Your task to perform on an android device: snooze an email in the gmail app Image 0: 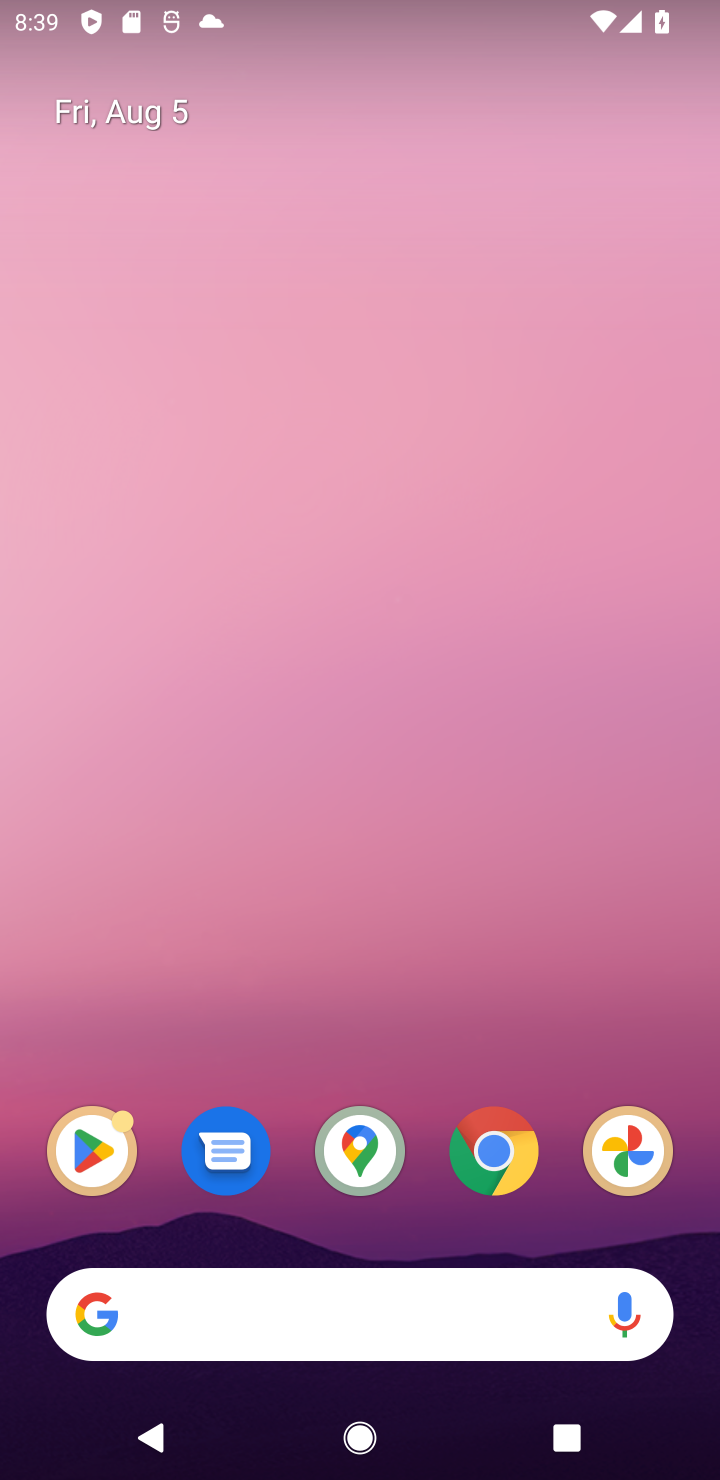
Step 0: drag from (252, 1156) to (319, 11)
Your task to perform on an android device: snooze an email in the gmail app Image 1: 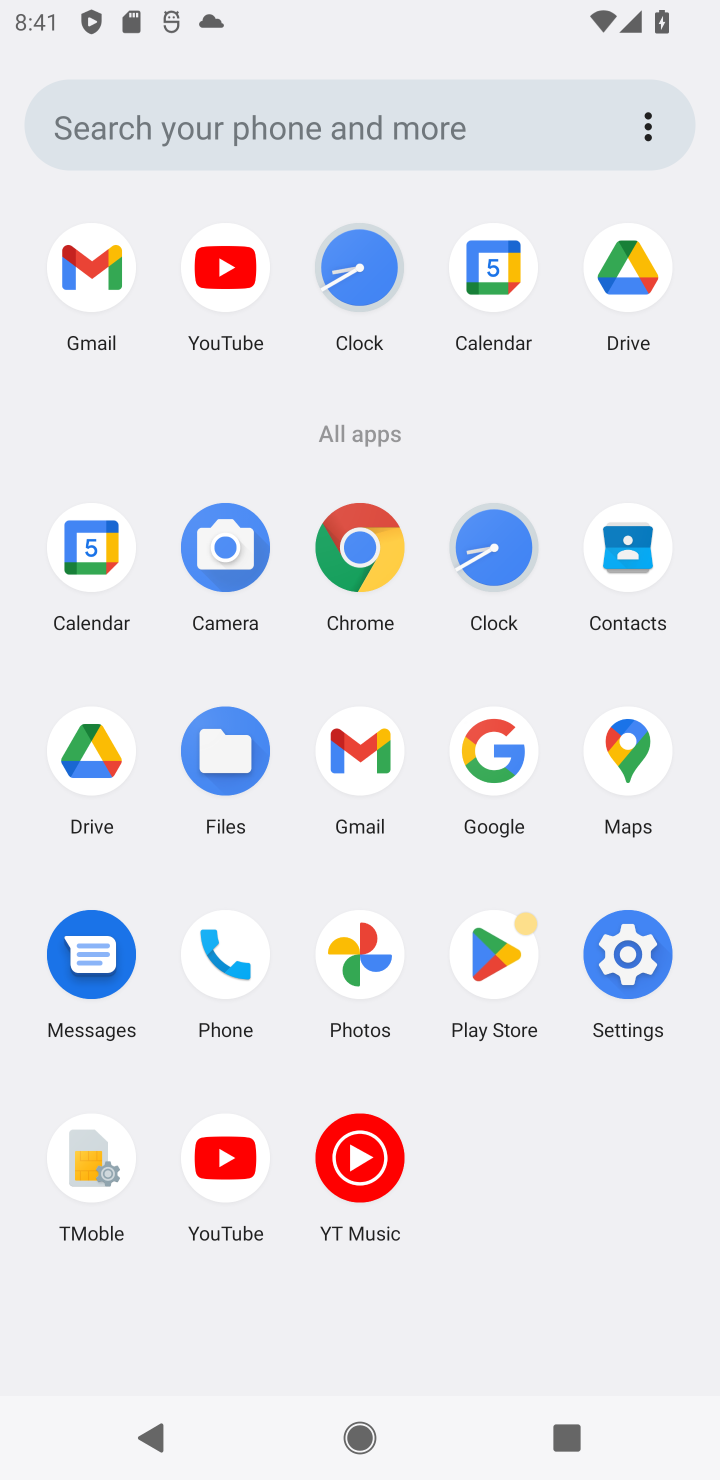
Step 1: click (345, 732)
Your task to perform on an android device: snooze an email in the gmail app Image 2: 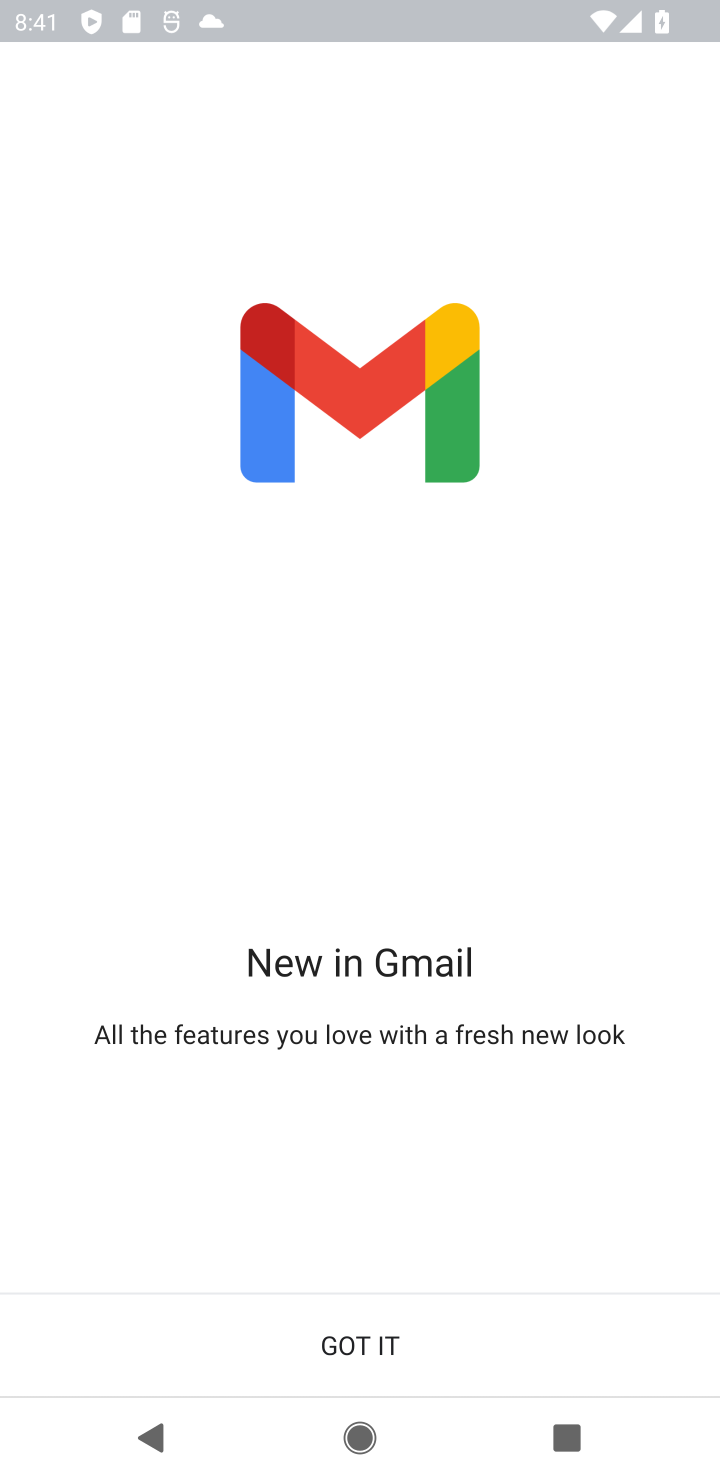
Step 2: click (411, 1327)
Your task to perform on an android device: snooze an email in the gmail app Image 3: 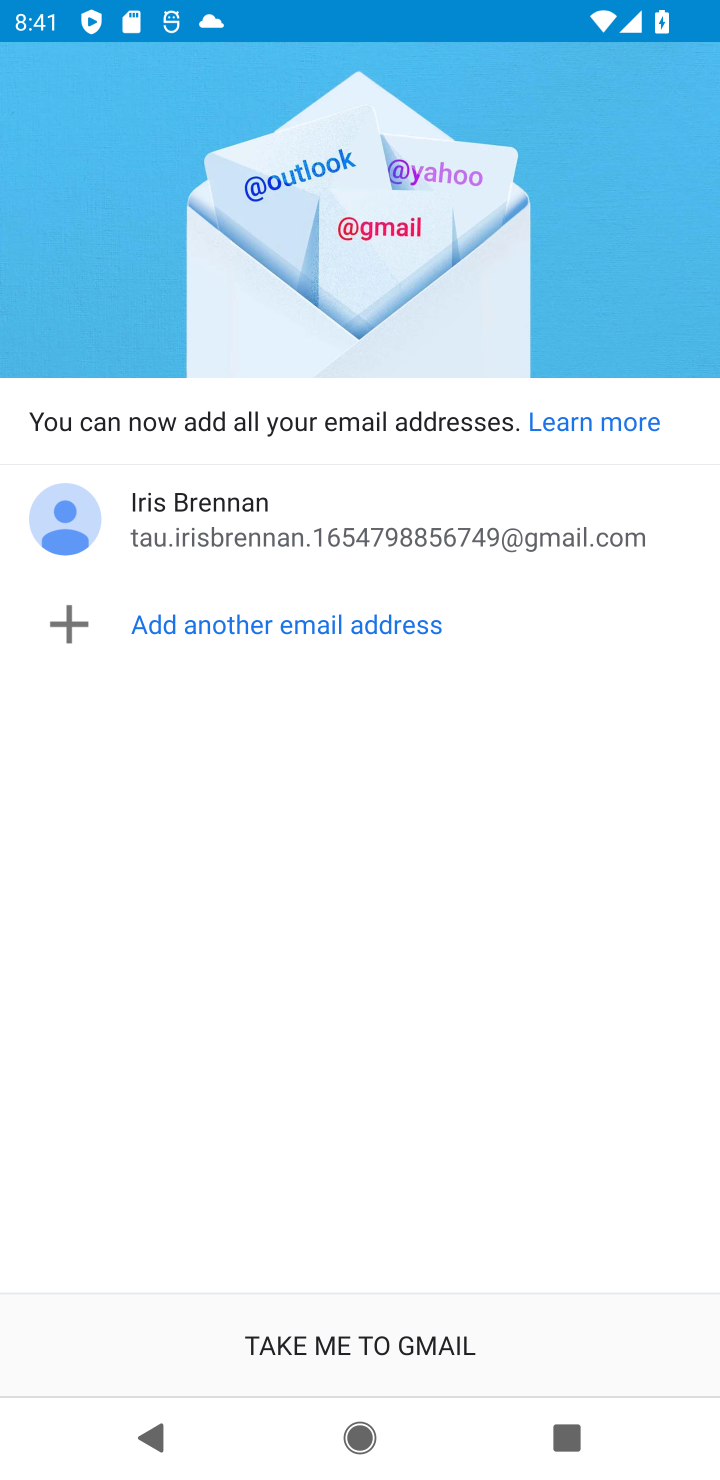
Step 3: click (380, 1334)
Your task to perform on an android device: snooze an email in the gmail app Image 4: 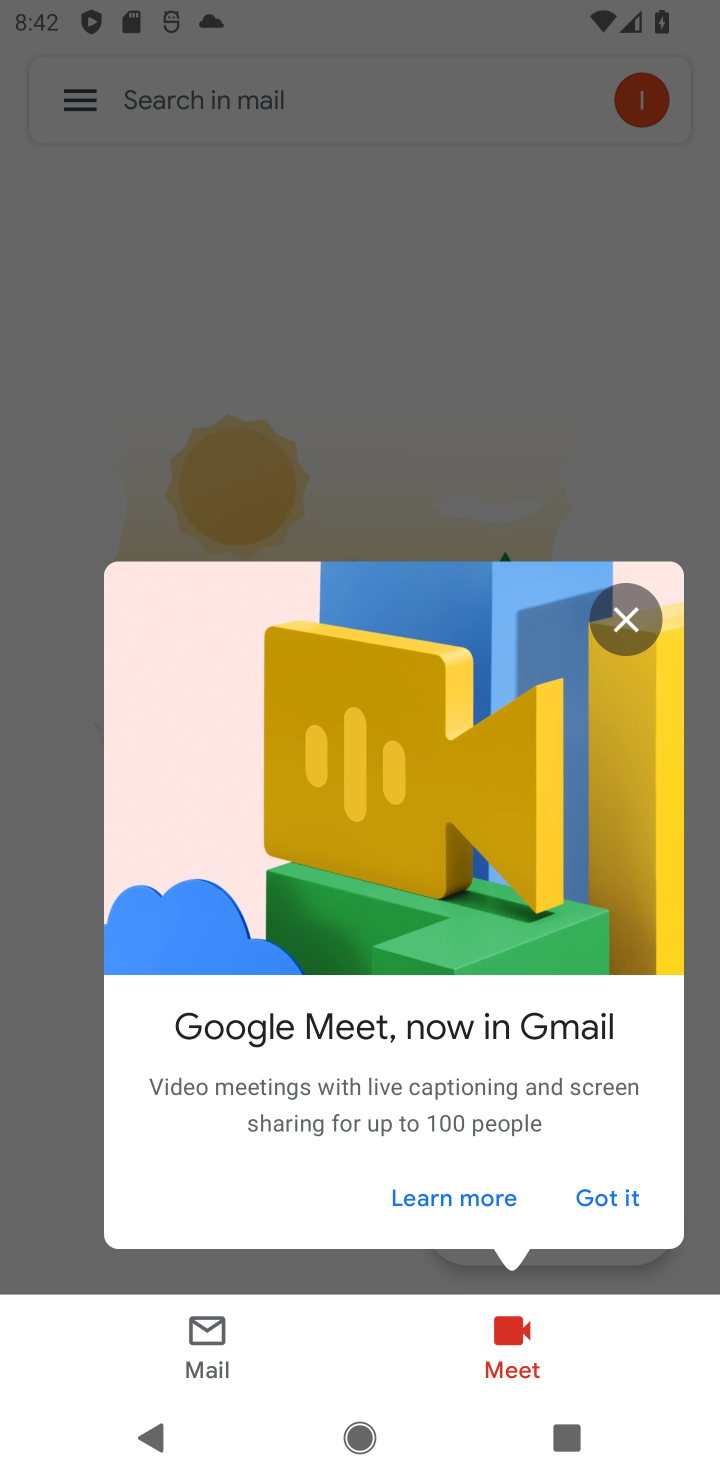
Step 4: click (591, 1209)
Your task to perform on an android device: snooze an email in the gmail app Image 5: 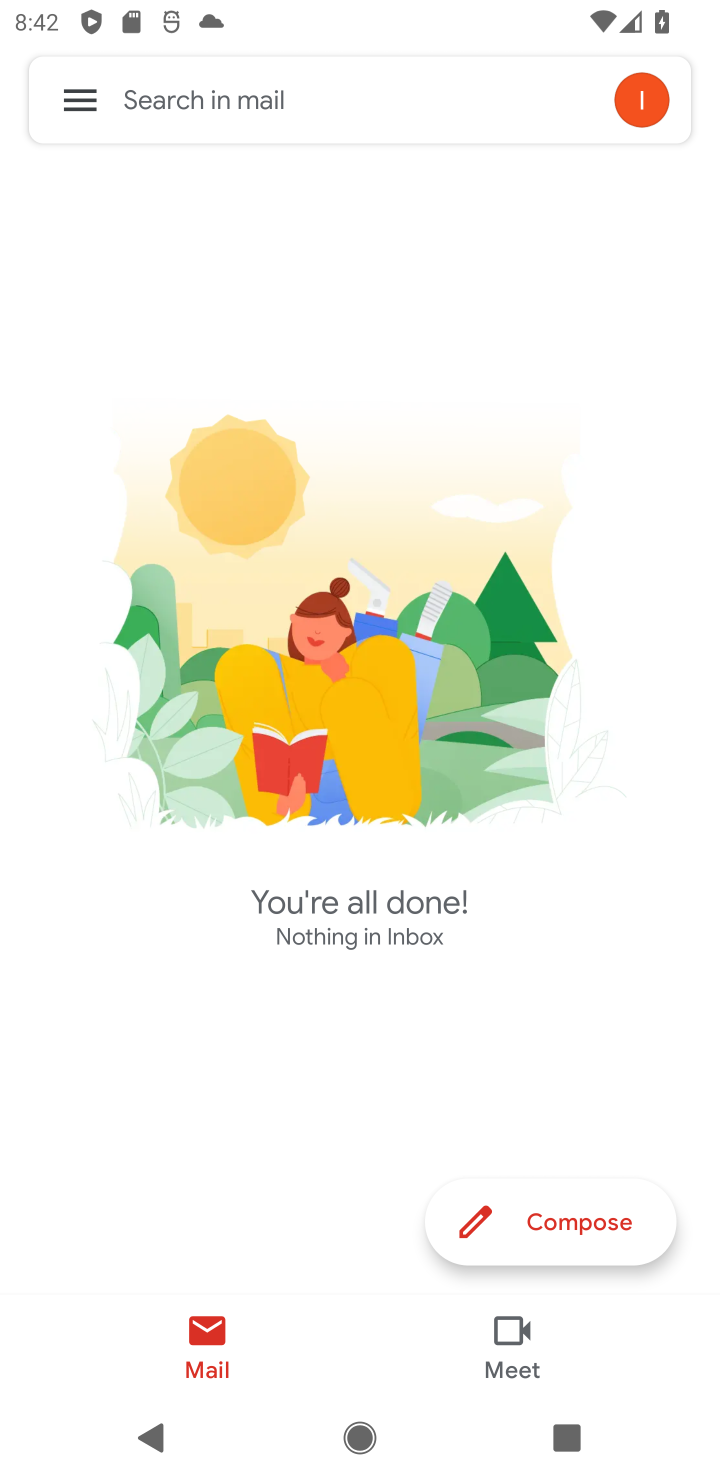
Step 5: click (79, 108)
Your task to perform on an android device: snooze an email in the gmail app Image 6: 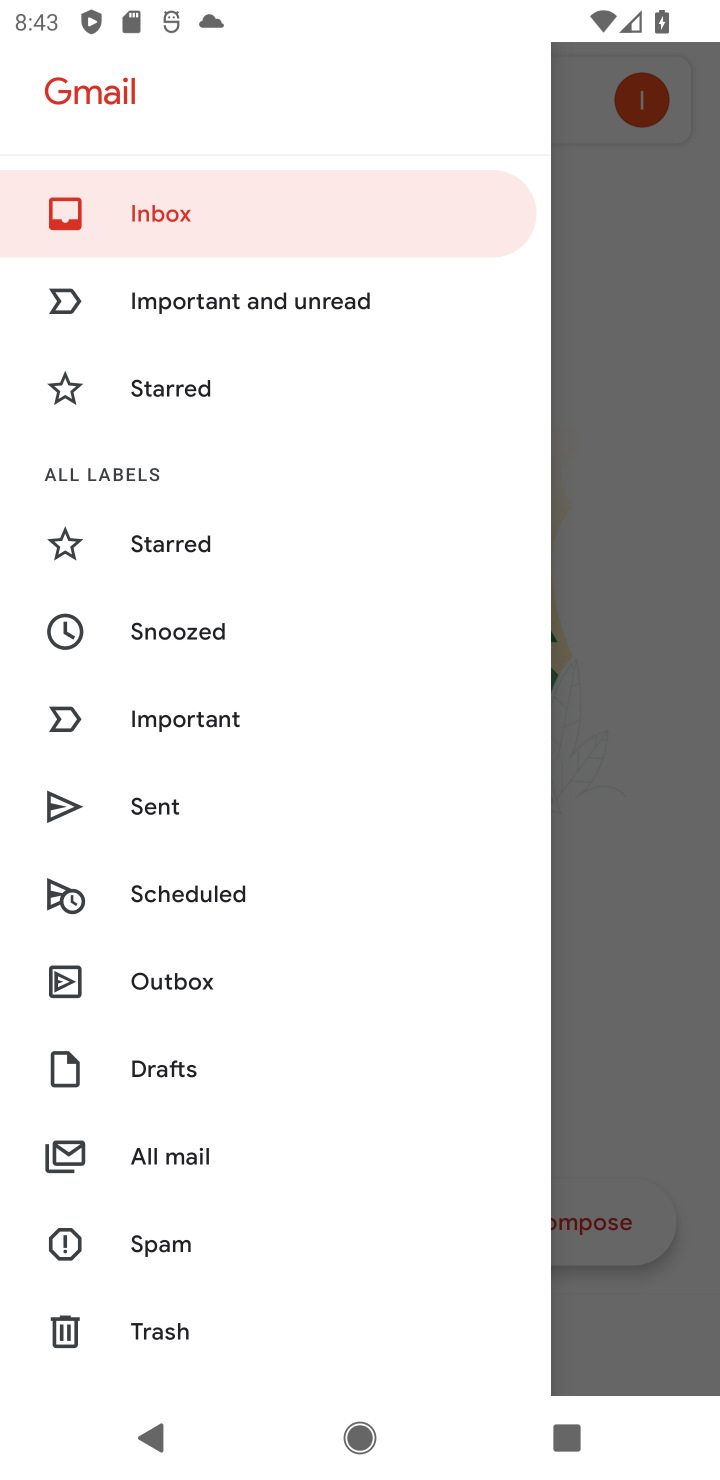
Step 6: click (168, 1149)
Your task to perform on an android device: snooze an email in the gmail app Image 7: 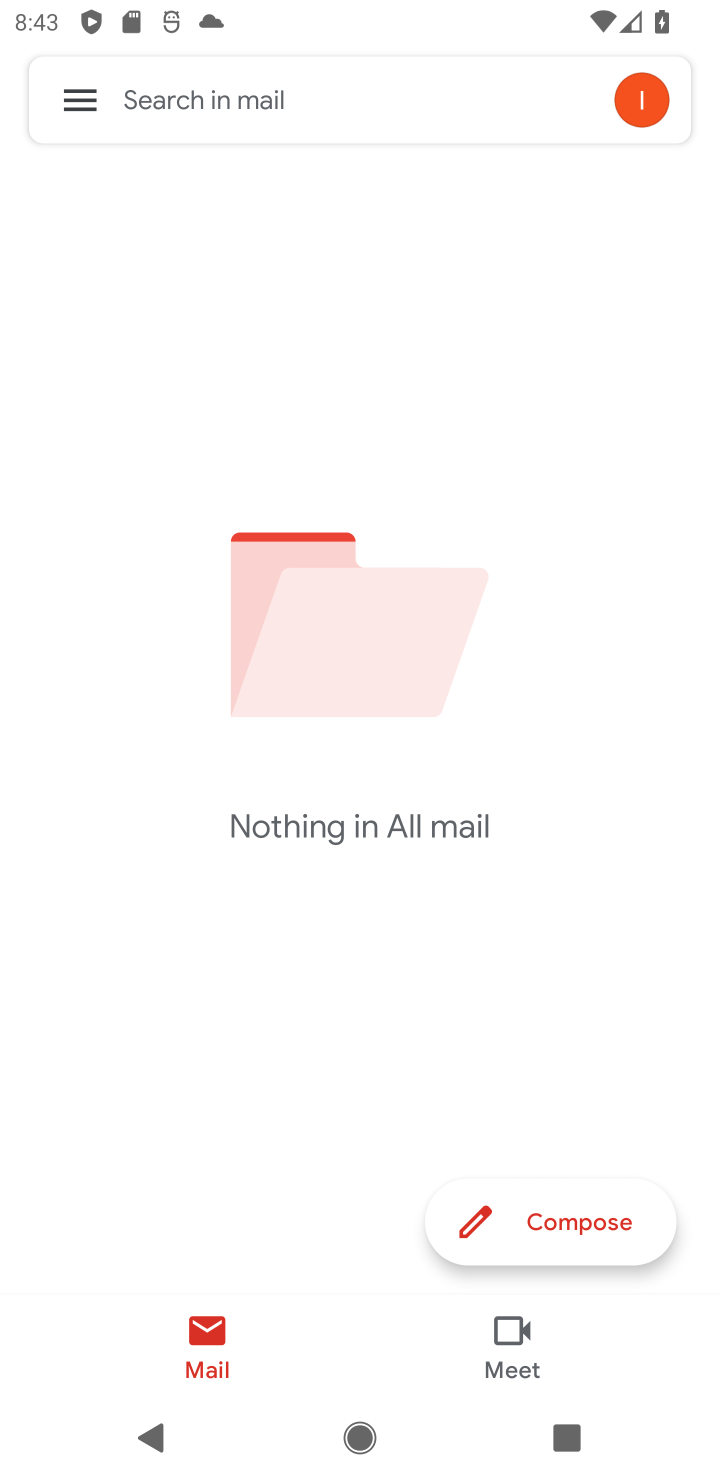
Step 7: task complete